Your task to perform on an android device: Open battery settings Image 0: 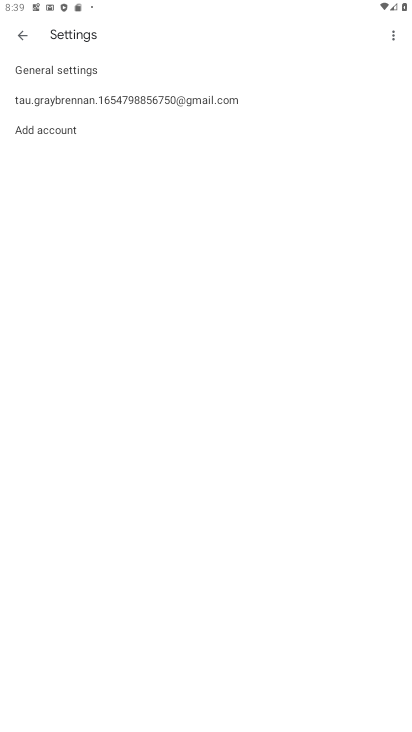
Step 0: press home button
Your task to perform on an android device: Open battery settings Image 1: 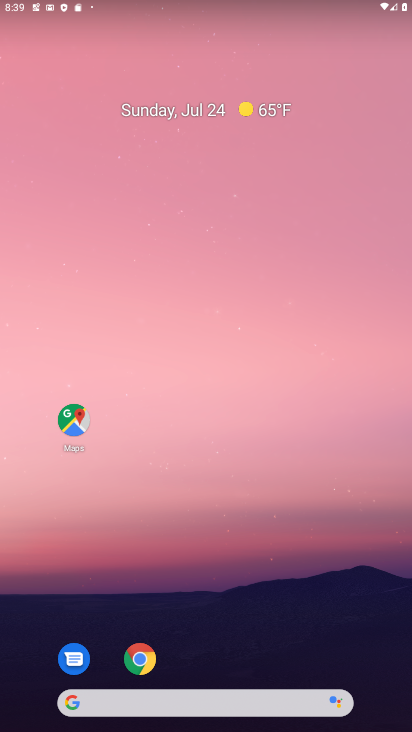
Step 1: drag from (285, 667) to (202, 2)
Your task to perform on an android device: Open battery settings Image 2: 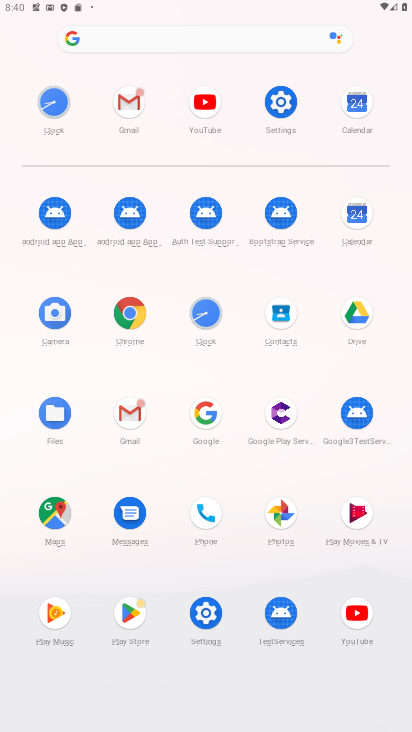
Step 2: click (281, 109)
Your task to perform on an android device: Open battery settings Image 3: 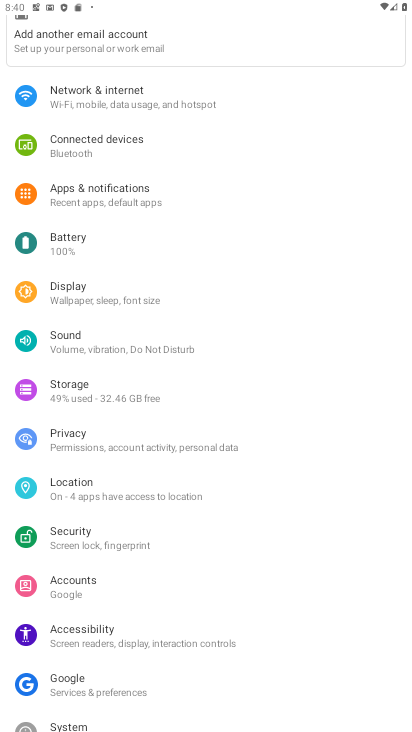
Step 3: click (67, 252)
Your task to perform on an android device: Open battery settings Image 4: 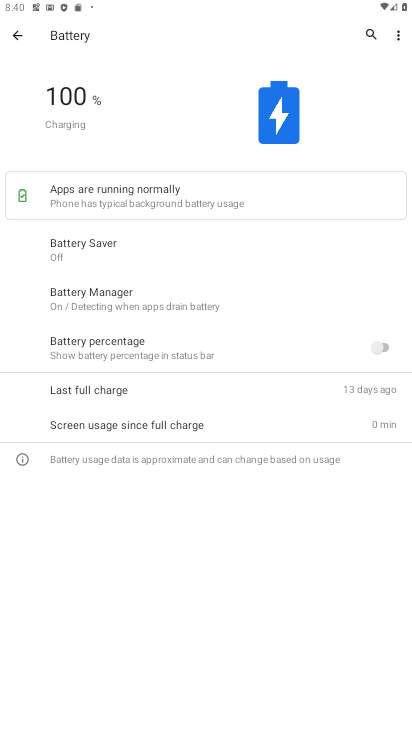
Step 4: task complete